Your task to perform on an android device: Go to location settings Image 0: 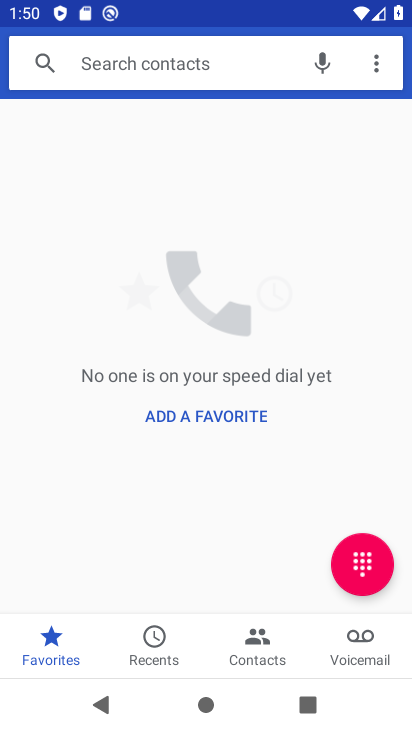
Step 0: press home button
Your task to perform on an android device: Go to location settings Image 1: 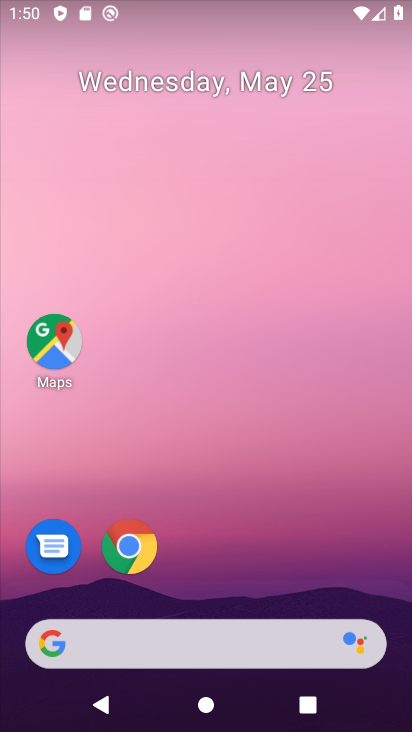
Step 1: drag from (251, 564) to (221, 105)
Your task to perform on an android device: Go to location settings Image 2: 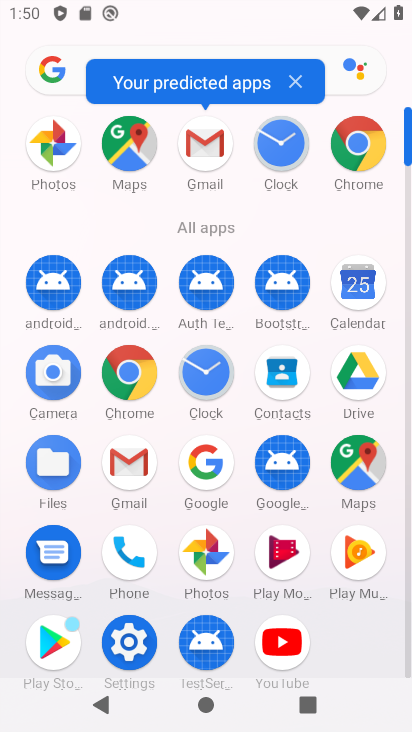
Step 2: click (129, 640)
Your task to perform on an android device: Go to location settings Image 3: 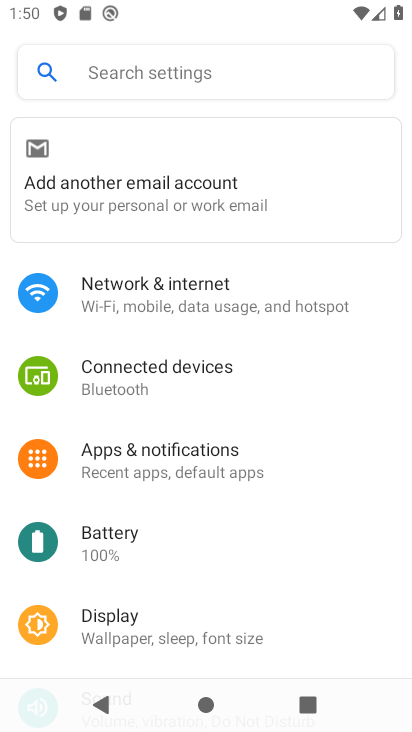
Step 3: drag from (163, 487) to (201, 398)
Your task to perform on an android device: Go to location settings Image 4: 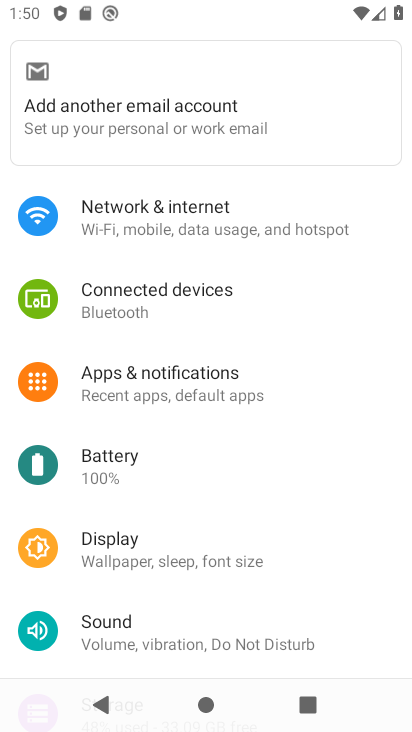
Step 4: drag from (181, 480) to (233, 379)
Your task to perform on an android device: Go to location settings Image 5: 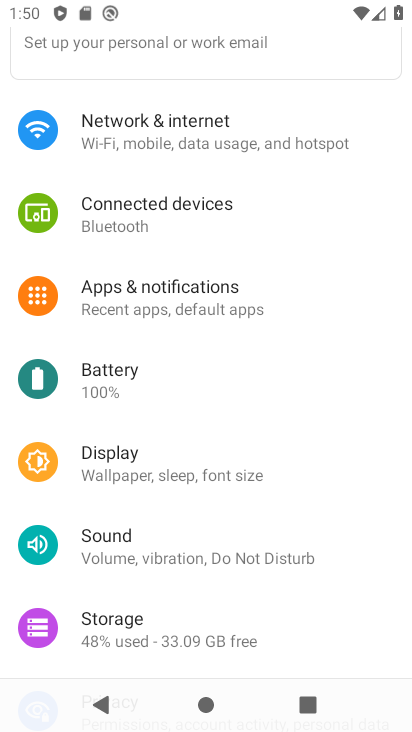
Step 5: drag from (164, 484) to (212, 415)
Your task to perform on an android device: Go to location settings Image 6: 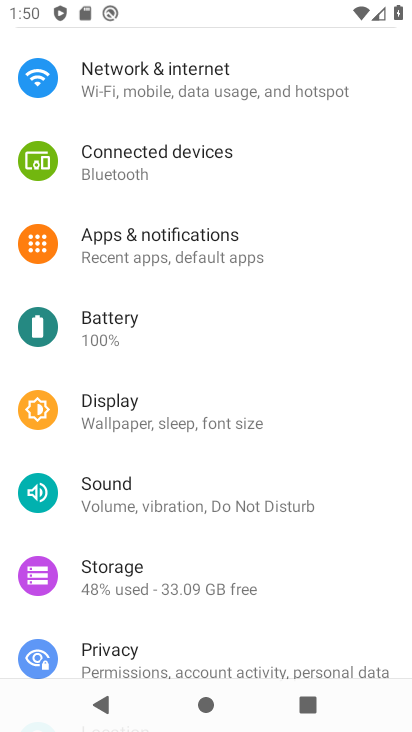
Step 6: drag from (157, 523) to (229, 424)
Your task to perform on an android device: Go to location settings Image 7: 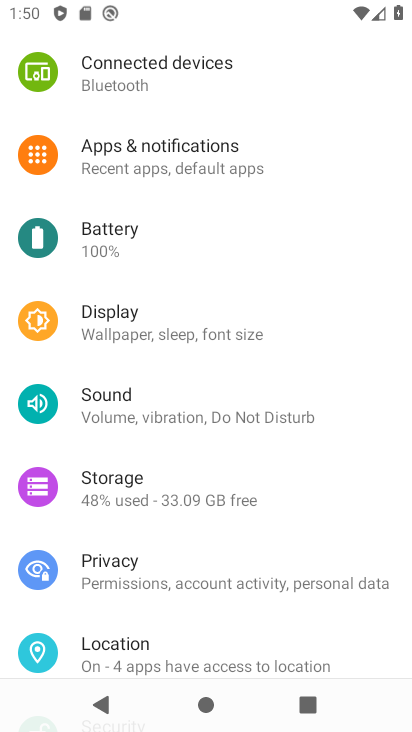
Step 7: drag from (141, 535) to (205, 434)
Your task to perform on an android device: Go to location settings Image 8: 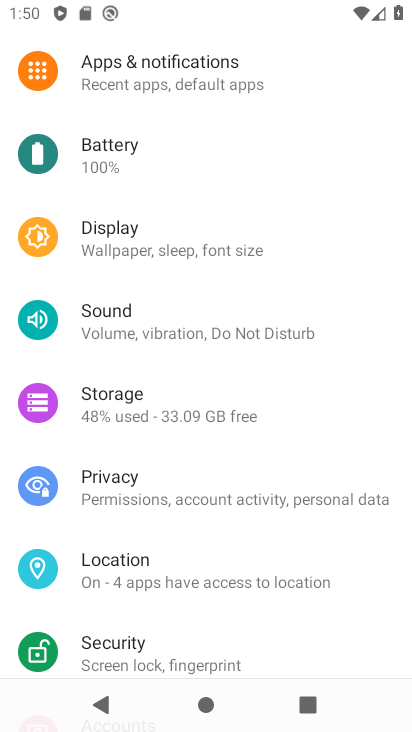
Step 8: click (127, 567)
Your task to perform on an android device: Go to location settings Image 9: 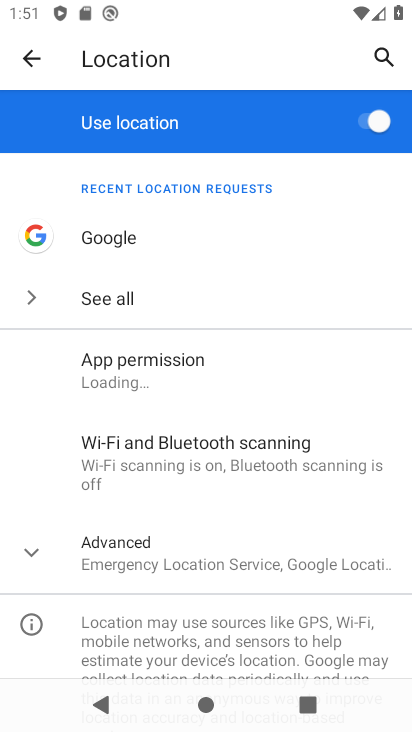
Step 9: task complete